Your task to perform on an android device: Show me recent news Image 0: 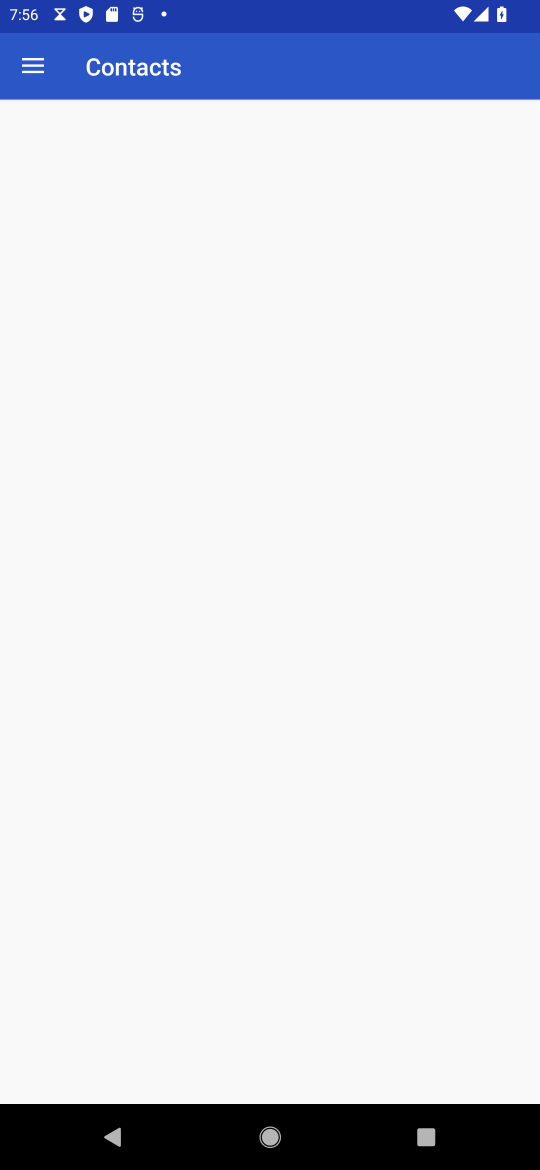
Step 0: press home button
Your task to perform on an android device: Show me recent news Image 1: 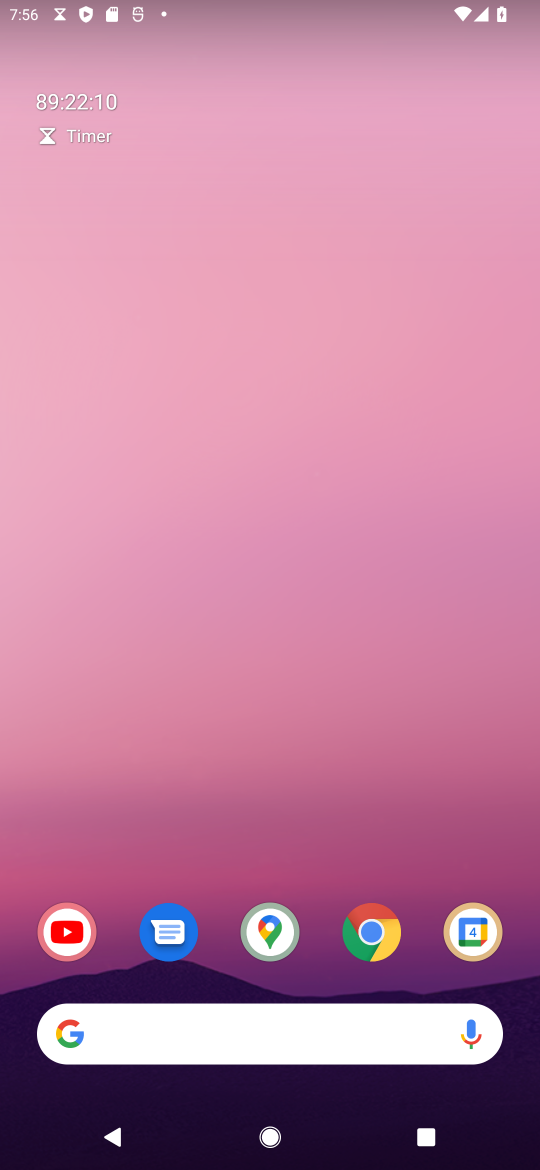
Step 1: click (255, 1035)
Your task to perform on an android device: Show me recent news Image 2: 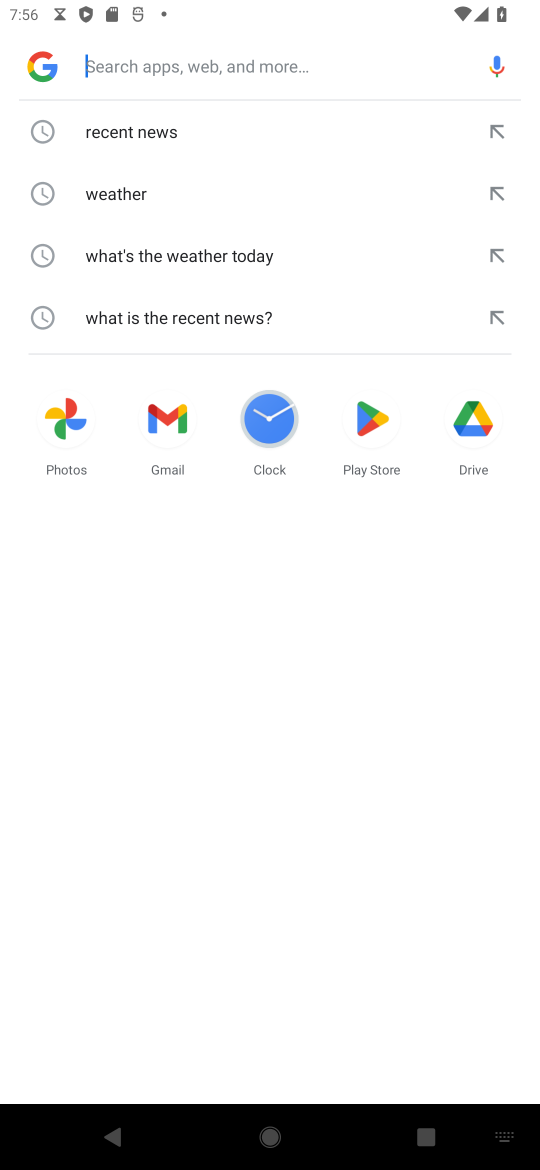
Step 2: type "recent news"
Your task to perform on an android device: Show me recent news Image 3: 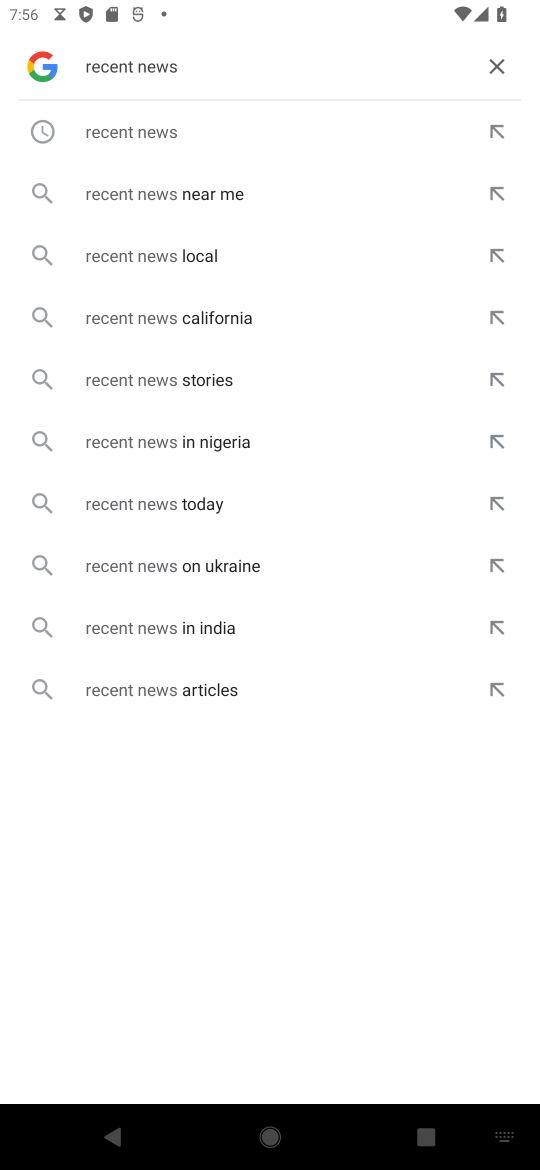
Step 3: click (312, 128)
Your task to perform on an android device: Show me recent news Image 4: 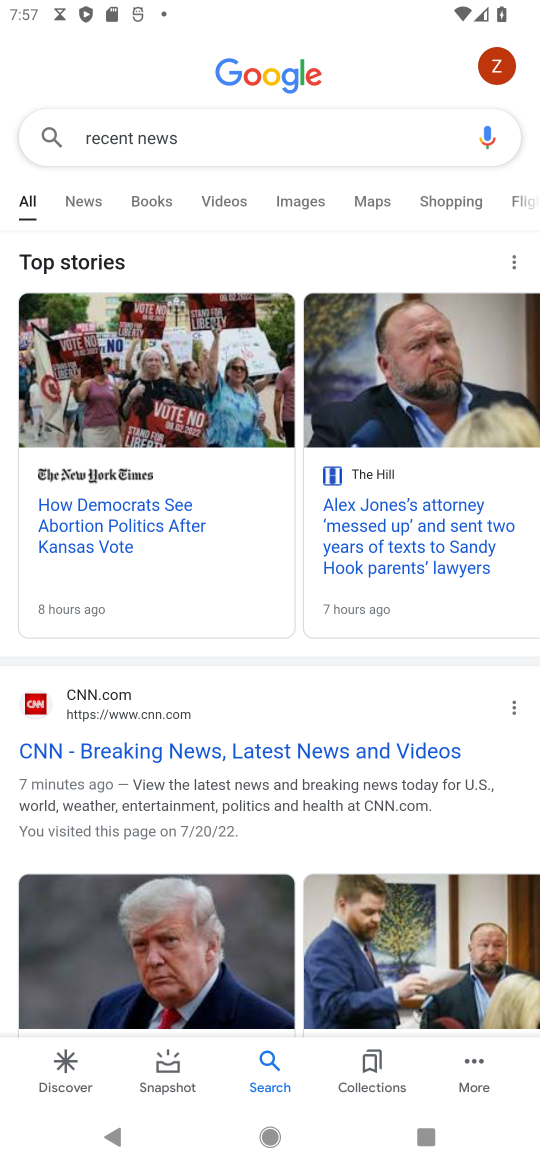
Step 4: click (75, 201)
Your task to perform on an android device: Show me recent news Image 5: 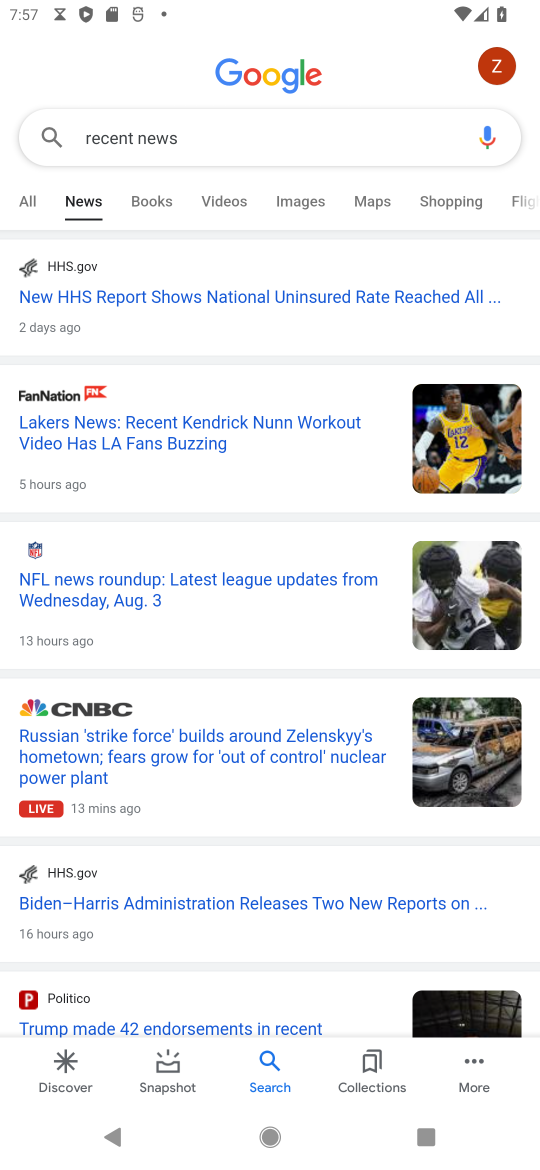
Step 5: task complete